Your task to perform on an android device: all mails in gmail Image 0: 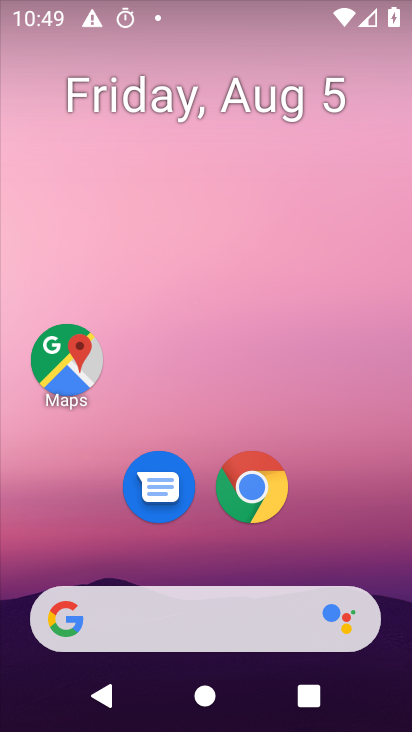
Step 0: drag from (186, 574) to (264, 10)
Your task to perform on an android device: all mails in gmail Image 1: 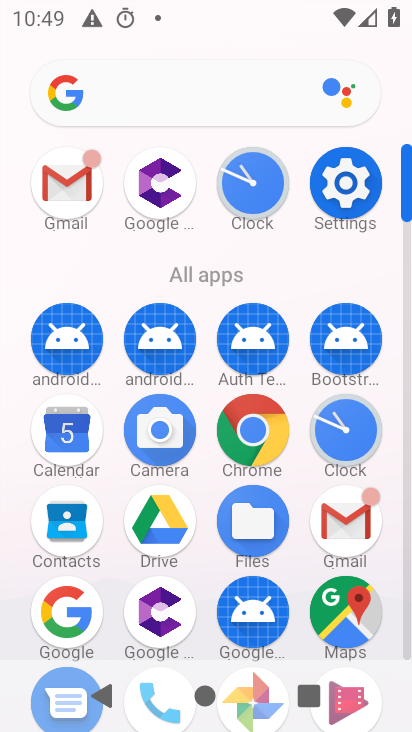
Step 1: click (66, 180)
Your task to perform on an android device: all mails in gmail Image 2: 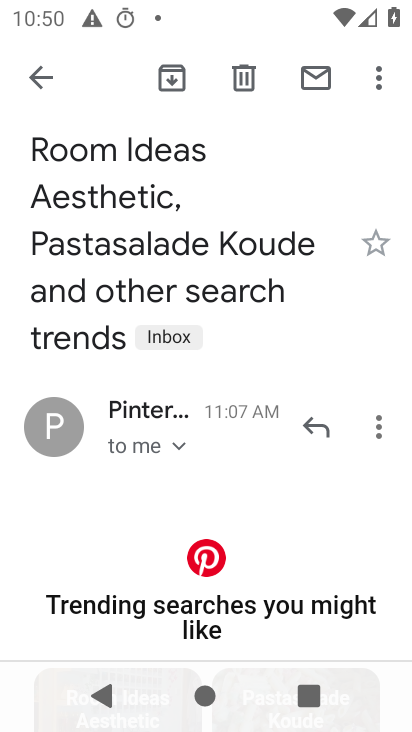
Step 2: click (39, 76)
Your task to perform on an android device: all mails in gmail Image 3: 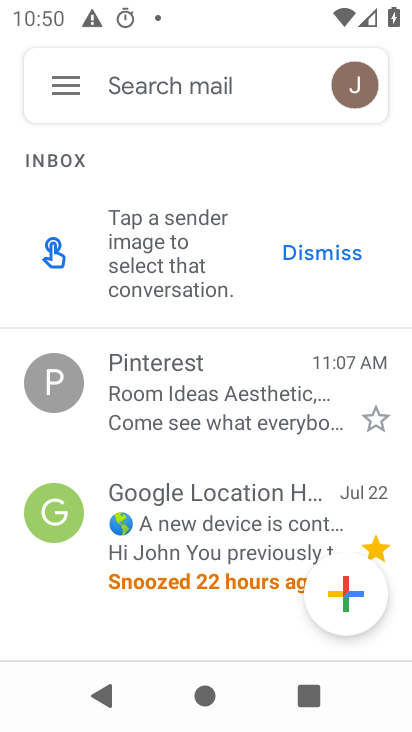
Step 3: click (68, 84)
Your task to perform on an android device: all mails in gmail Image 4: 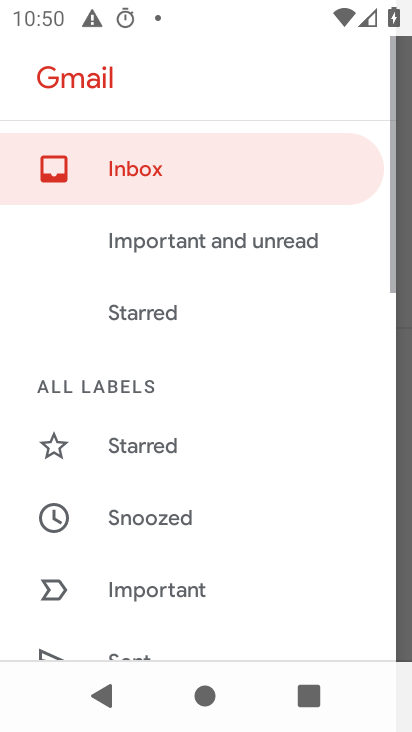
Step 4: drag from (156, 602) to (284, 126)
Your task to perform on an android device: all mails in gmail Image 5: 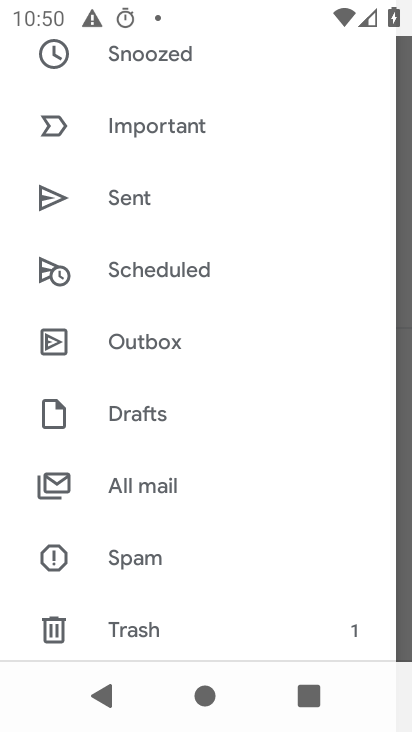
Step 5: click (161, 486)
Your task to perform on an android device: all mails in gmail Image 6: 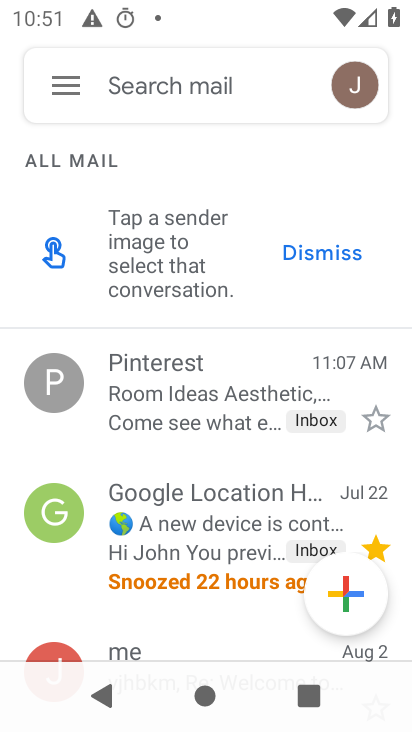
Step 6: task complete